Your task to perform on an android device: delete a single message in the gmail app Image 0: 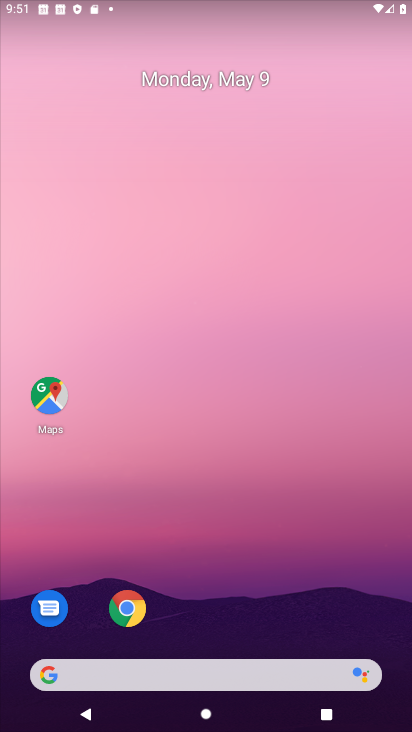
Step 0: drag from (277, 635) to (288, 316)
Your task to perform on an android device: delete a single message in the gmail app Image 1: 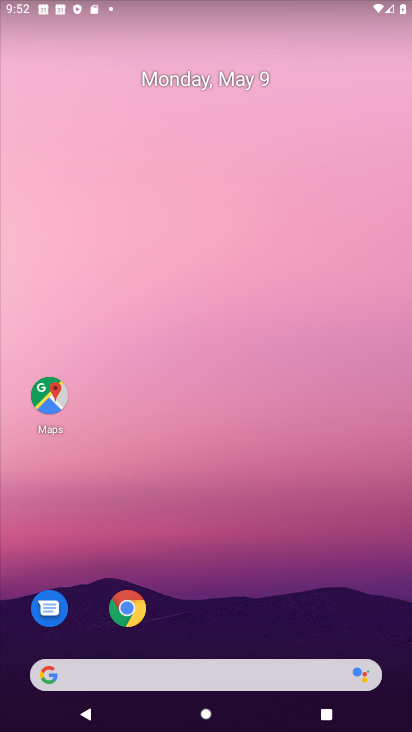
Step 1: drag from (308, 539) to (292, 208)
Your task to perform on an android device: delete a single message in the gmail app Image 2: 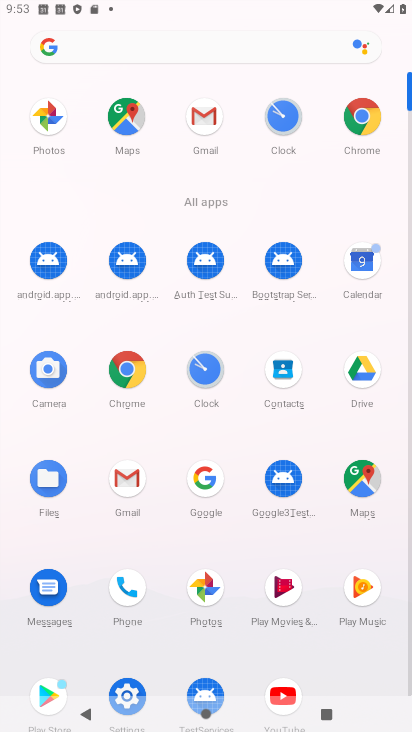
Step 2: click (112, 498)
Your task to perform on an android device: delete a single message in the gmail app Image 3: 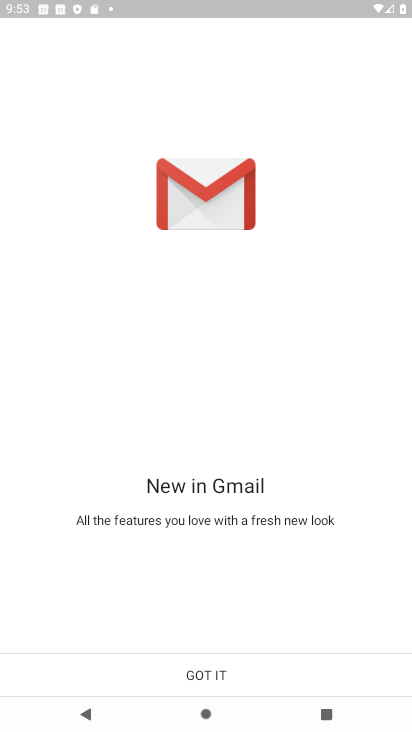
Step 3: click (201, 677)
Your task to perform on an android device: delete a single message in the gmail app Image 4: 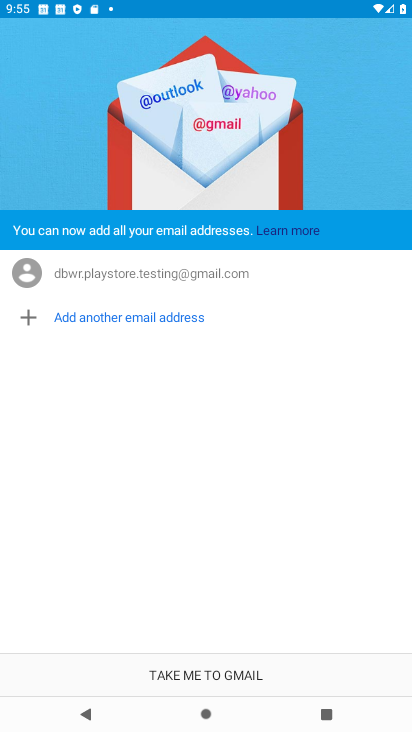
Step 4: click (267, 668)
Your task to perform on an android device: delete a single message in the gmail app Image 5: 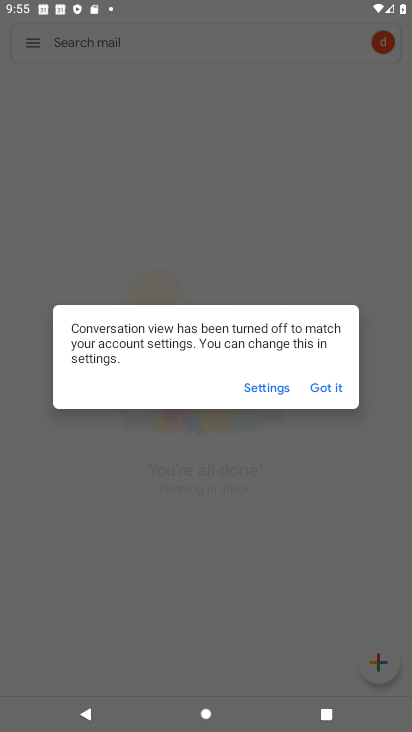
Step 5: click (336, 401)
Your task to perform on an android device: delete a single message in the gmail app Image 6: 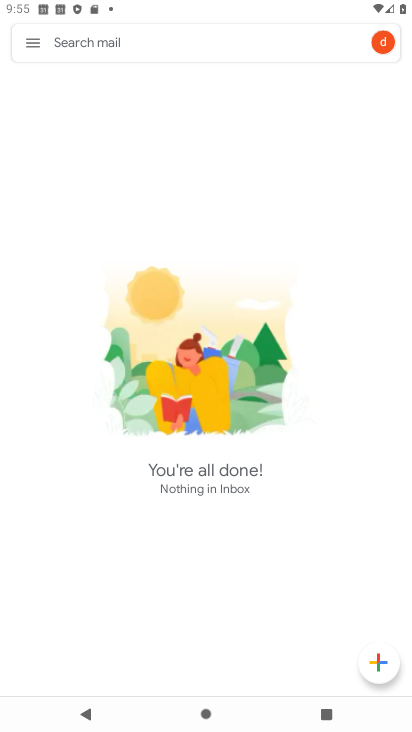
Step 6: click (27, 39)
Your task to perform on an android device: delete a single message in the gmail app Image 7: 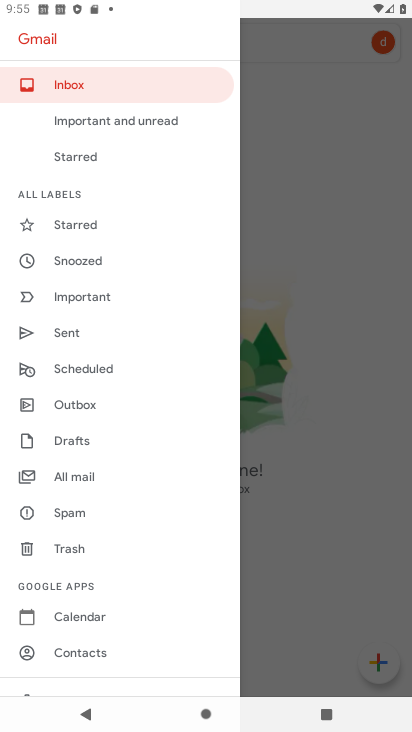
Step 7: task complete